Your task to perform on an android device: toggle notifications settings in the gmail app Image 0: 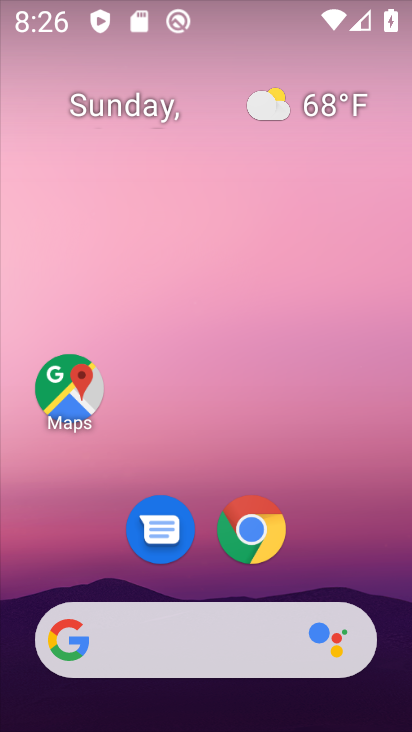
Step 0: press home button
Your task to perform on an android device: toggle notifications settings in the gmail app Image 1: 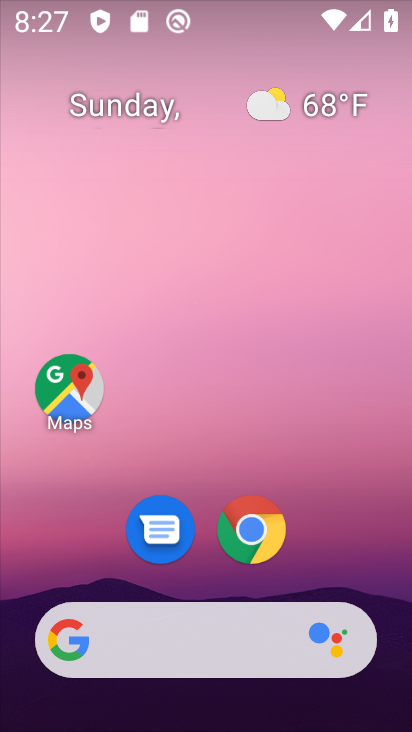
Step 1: drag from (268, 326) to (319, 77)
Your task to perform on an android device: toggle notifications settings in the gmail app Image 2: 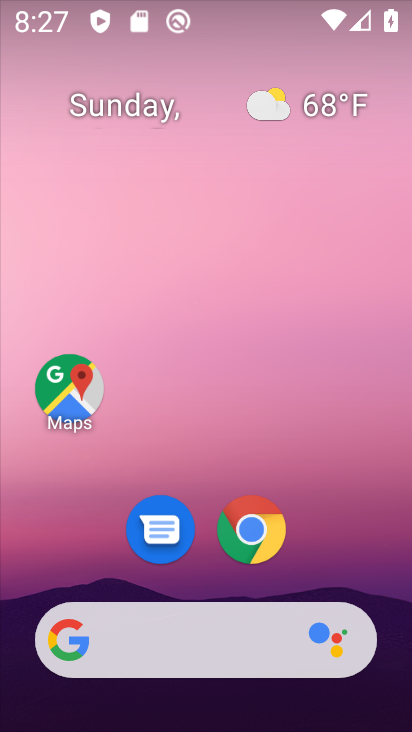
Step 2: drag from (326, 558) to (341, 1)
Your task to perform on an android device: toggle notifications settings in the gmail app Image 3: 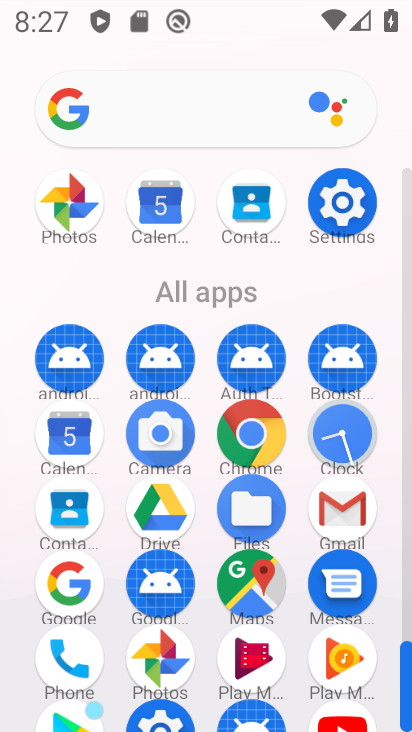
Step 3: click (340, 502)
Your task to perform on an android device: toggle notifications settings in the gmail app Image 4: 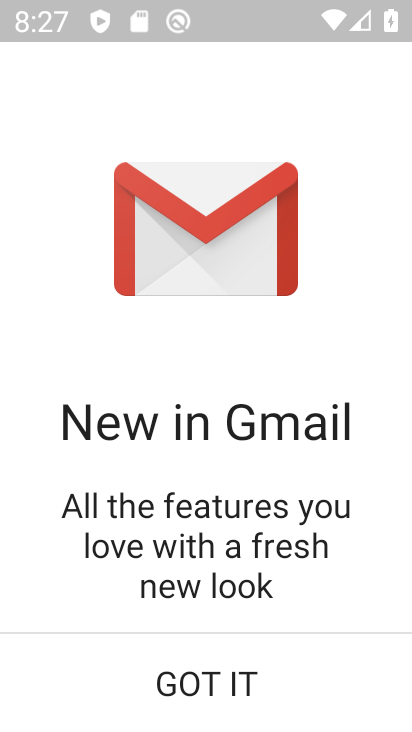
Step 4: click (216, 704)
Your task to perform on an android device: toggle notifications settings in the gmail app Image 5: 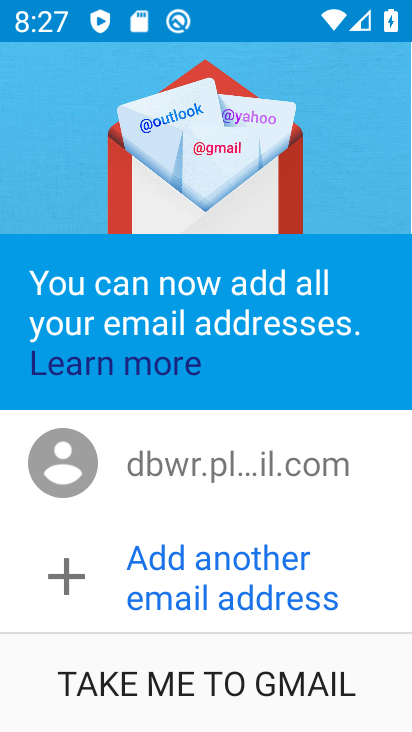
Step 5: click (200, 697)
Your task to perform on an android device: toggle notifications settings in the gmail app Image 6: 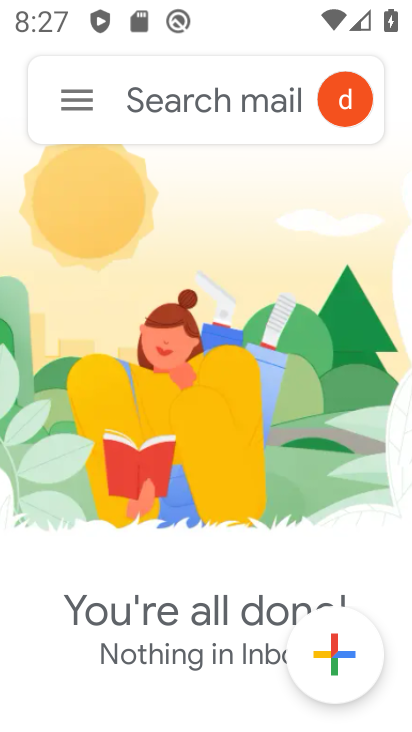
Step 6: click (74, 97)
Your task to perform on an android device: toggle notifications settings in the gmail app Image 7: 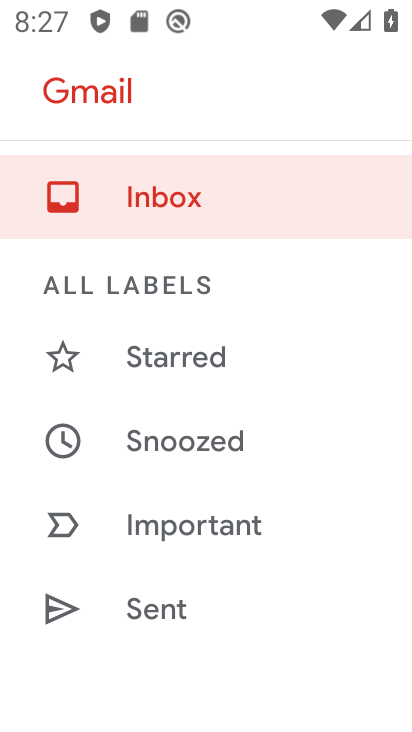
Step 7: drag from (185, 597) to (190, 22)
Your task to perform on an android device: toggle notifications settings in the gmail app Image 8: 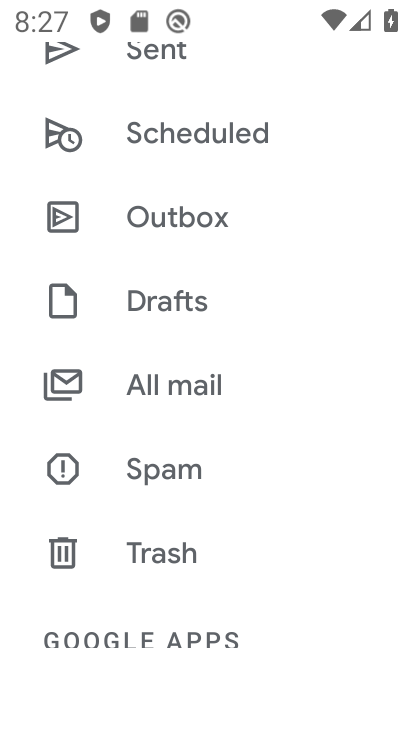
Step 8: drag from (155, 616) to (191, 18)
Your task to perform on an android device: toggle notifications settings in the gmail app Image 9: 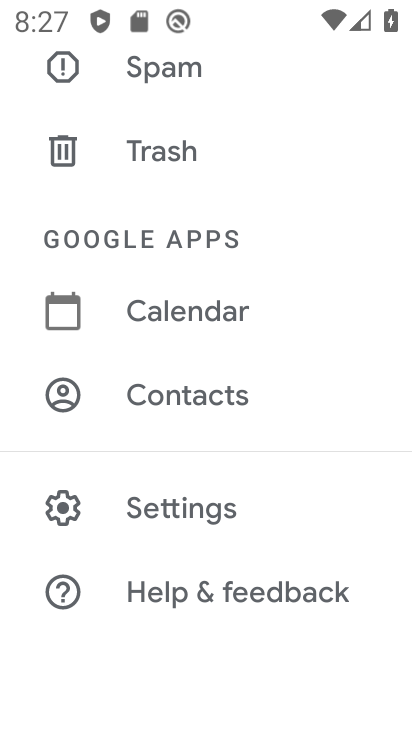
Step 9: click (154, 511)
Your task to perform on an android device: toggle notifications settings in the gmail app Image 10: 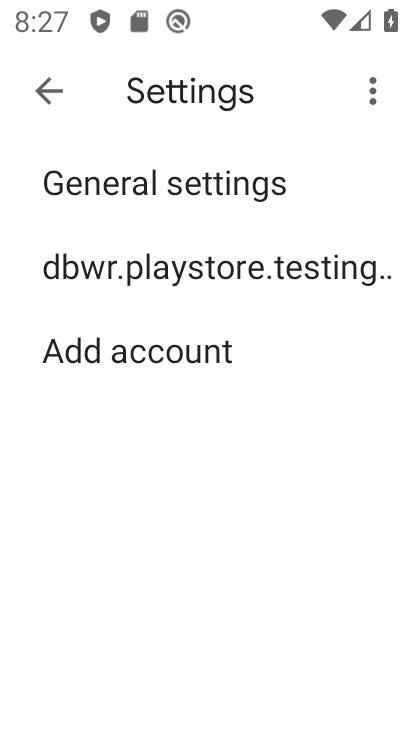
Step 10: click (183, 169)
Your task to perform on an android device: toggle notifications settings in the gmail app Image 11: 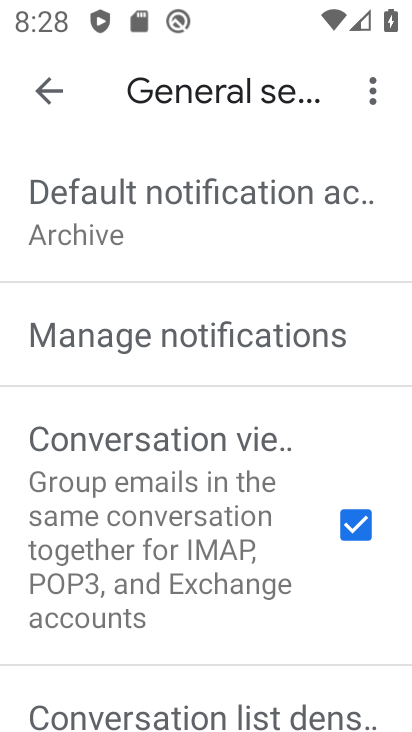
Step 11: click (137, 349)
Your task to perform on an android device: toggle notifications settings in the gmail app Image 12: 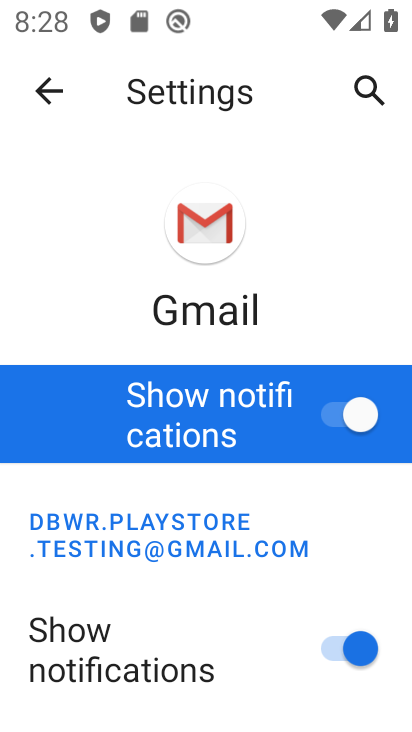
Step 12: click (330, 417)
Your task to perform on an android device: toggle notifications settings in the gmail app Image 13: 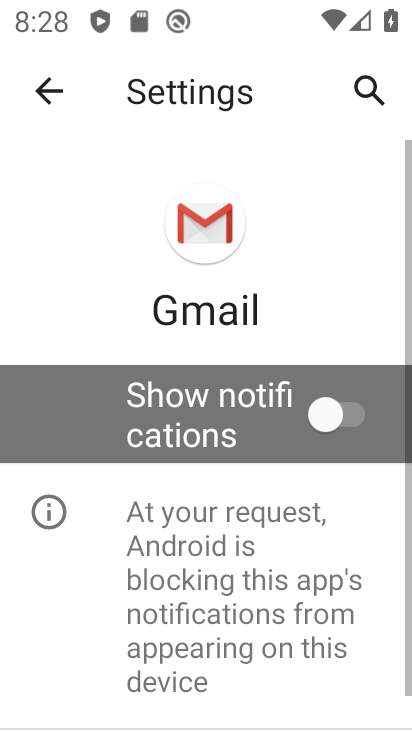
Step 13: task complete